Your task to perform on an android device: Open the phone app and click the voicemail tab. Image 0: 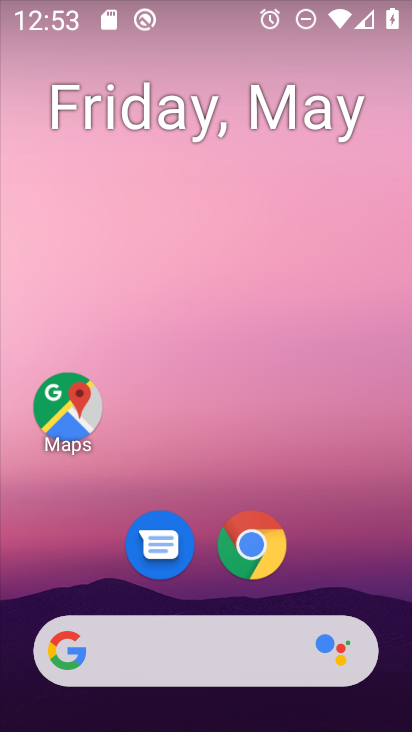
Step 0: drag from (314, 581) to (337, 128)
Your task to perform on an android device: Open the phone app and click the voicemail tab. Image 1: 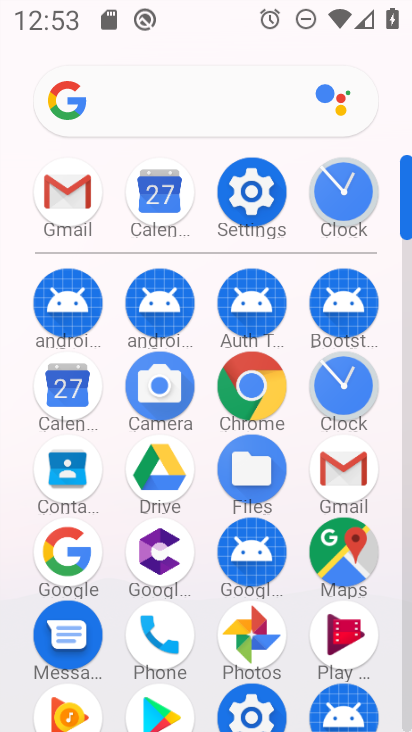
Step 1: drag from (291, 608) to (280, 291)
Your task to perform on an android device: Open the phone app and click the voicemail tab. Image 2: 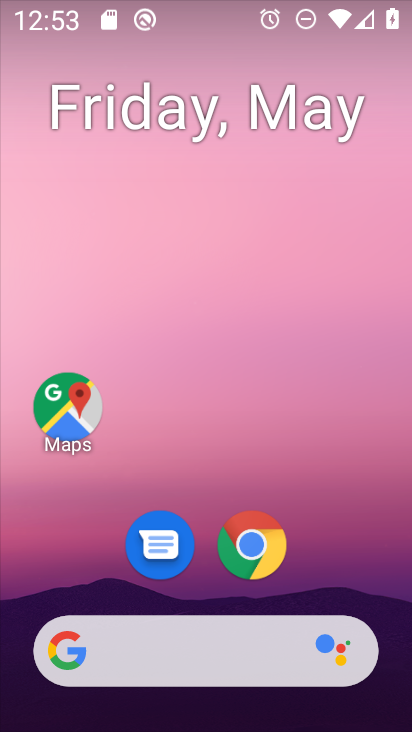
Step 2: click (165, 617)
Your task to perform on an android device: Open the phone app and click the voicemail tab. Image 3: 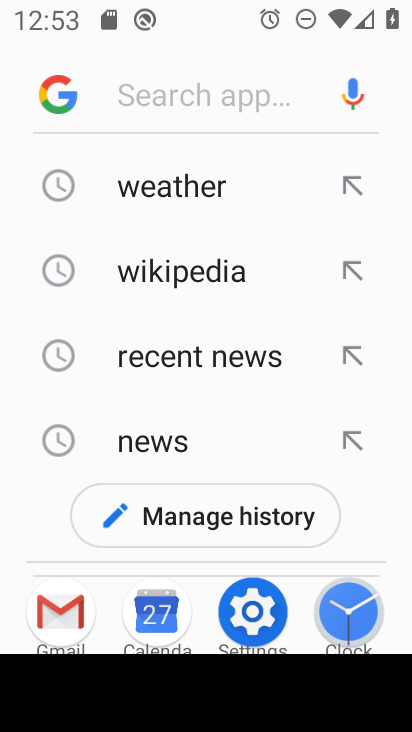
Step 3: click (285, 584)
Your task to perform on an android device: Open the phone app and click the voicemail tab. Image 4: 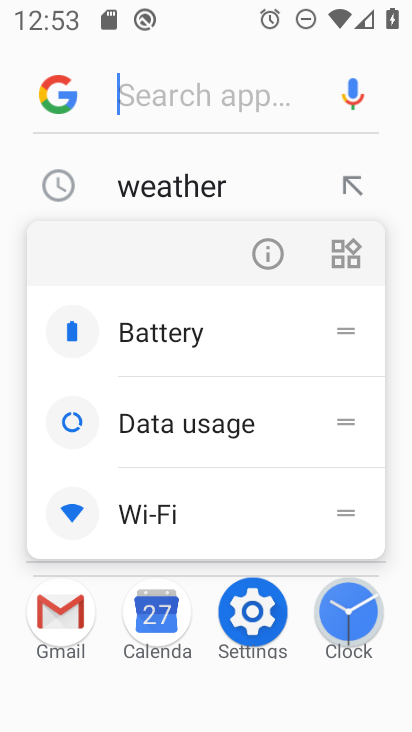
Step 4: press home button
Your task to perform on an android device: Open the phone app and click the voicemail tab. Image 5: 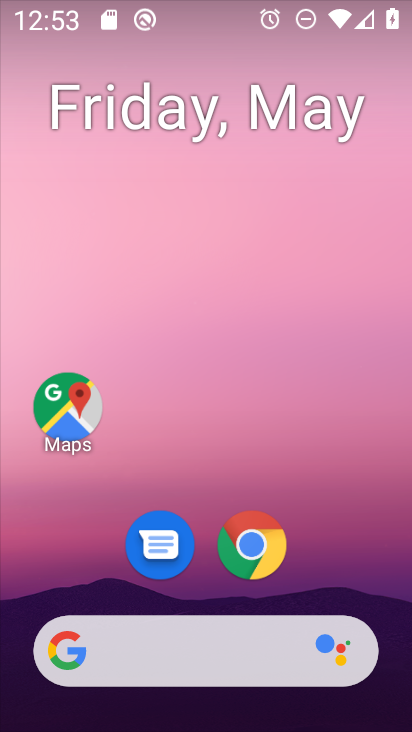
Step 5: drag from (252, 575) to (228, 189)
Your task to perform on an android device: Open the phone app and click the voicemail tab. Image 6: 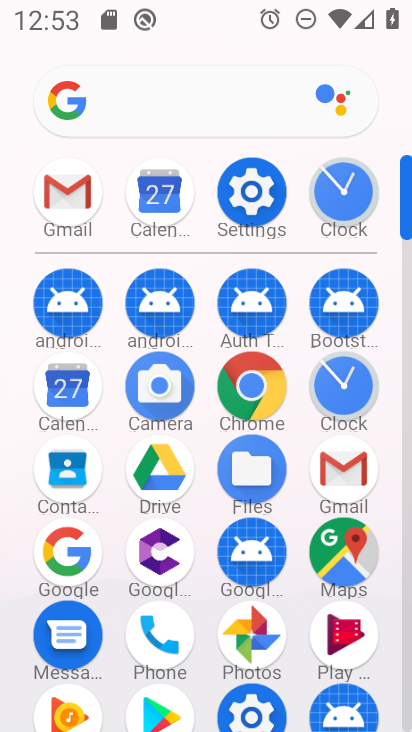
Step 6: click (154, 627)
Your task to perform on an android device: Open the phone app and click the voicemail tab. Image 7: 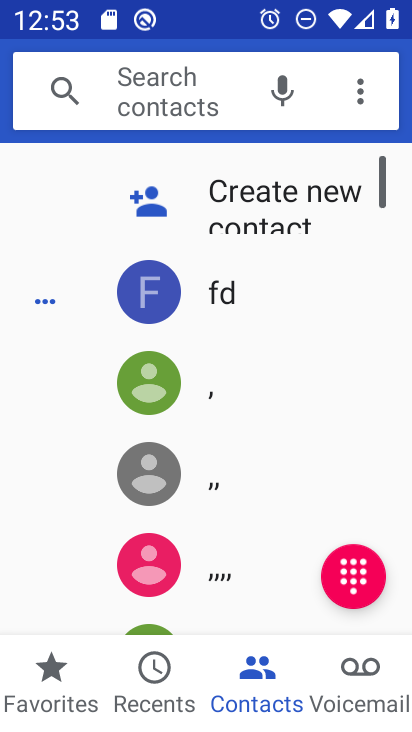
Step 7: click (352, 656)
Your task to perform on an android device: Open the phone app and click the voicemail tab. Image 8: 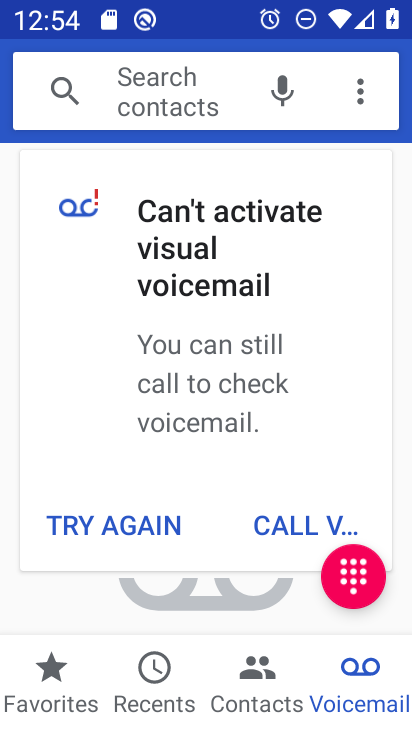
Step 8: task complete